Your task to perform on an android device: snooze an email in the gmail app Image 0: 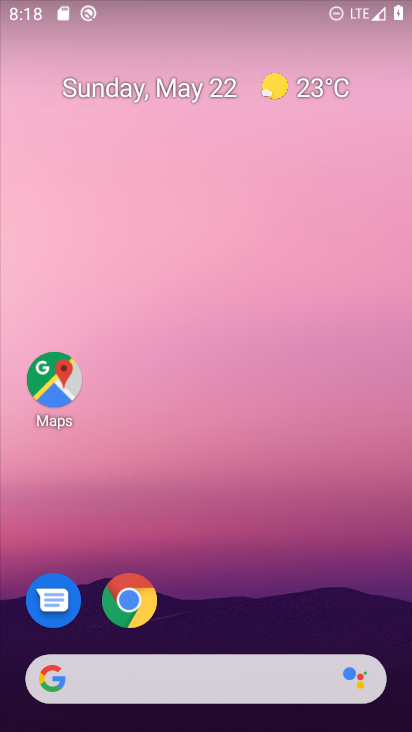
Step 0: drag from (367, 620) to (236, 67)
Your task to perform on an android device: snooze an email in the gmail app Image 1: 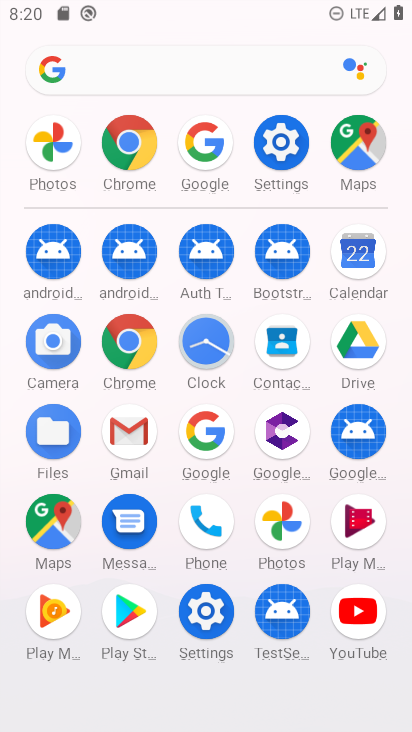
Step 1: click (147, 452)
Your task to perform on an android device: snooze an email in the gmail app Image 2: 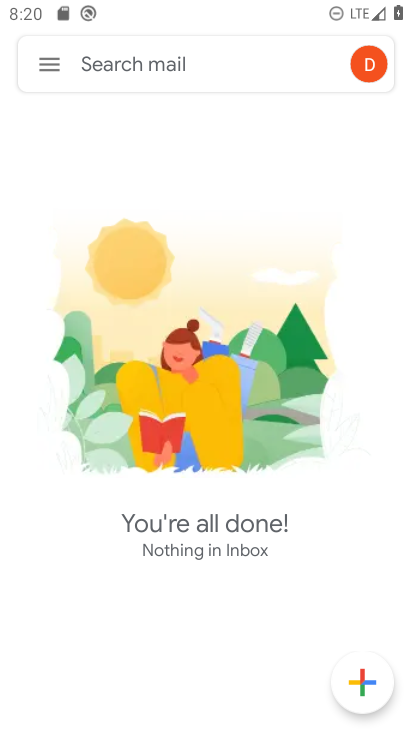
Step 2: task complete